Your task to perform on an android device: Open calendar and show me the first week of next month Image 0: 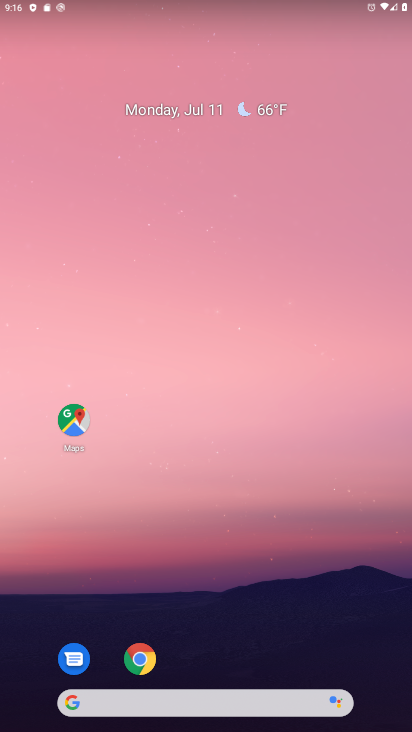
Step 0: drag from (324, 652) to (342, 193)
Your task to perform on an android device: Open calendar and show me the first week of next month Image 1: 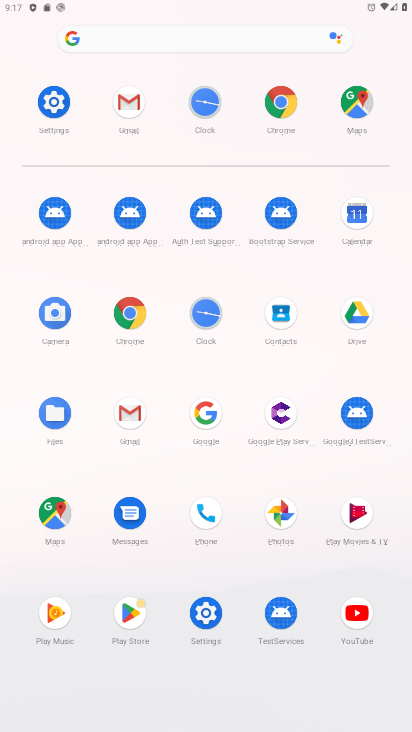
Step 1: click (364, 220)
Your task to perform on an android device: Open calendar and show me the first week of next month Image 2: 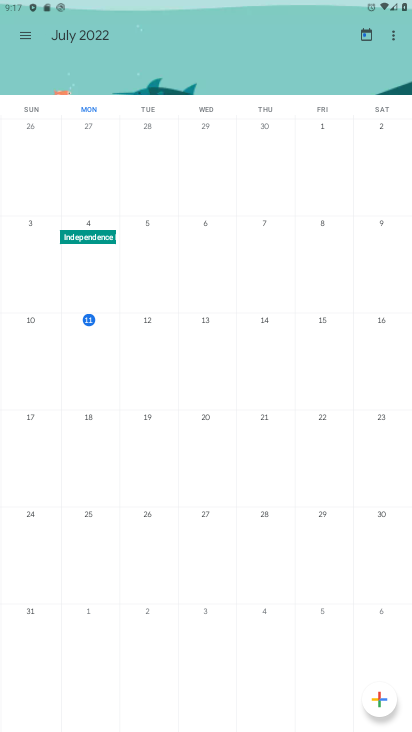
Step 2: click (25, 35)
Your task to perform on an android device: Open calendar and show me the first week of next month Image 3: 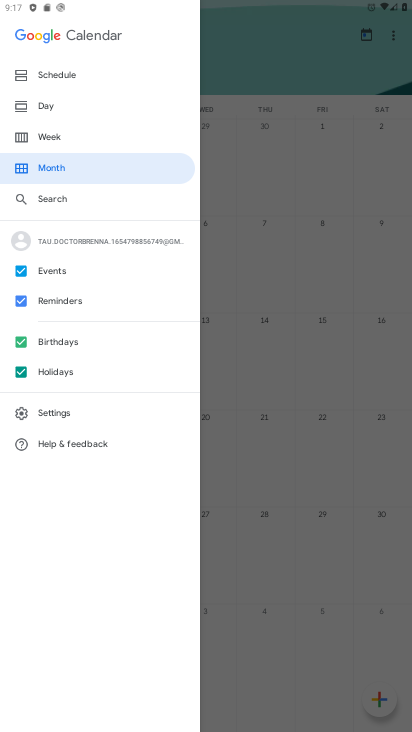
Step 3: click (67, 78)
Your task to perform on an android device: Open calendar and show me the first week of next month Image 4: 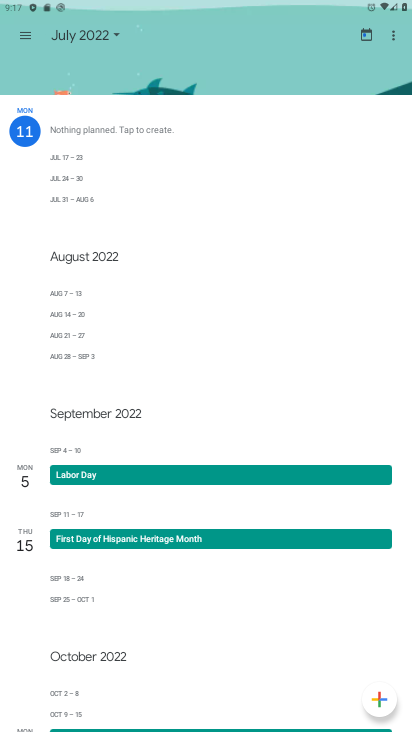
Step 4: click (117, 31)
Your task to perform on an android device: Open calendar and show me the first week of next month Image 5: 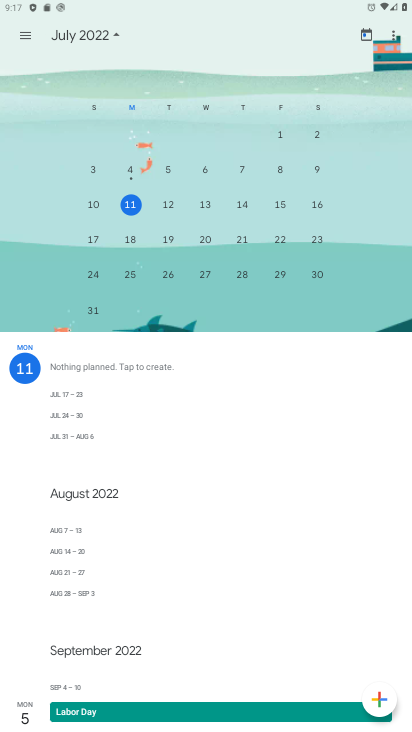
Step 5: task complete